Your task to perform on an android device: Open CNN.com Image 0: 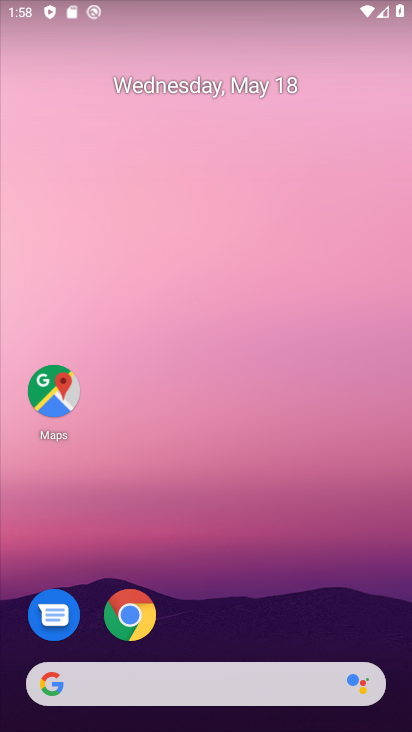
Step 0: click (145, 611)
Your task to perform on an android device: Open CNN.com Image 1: 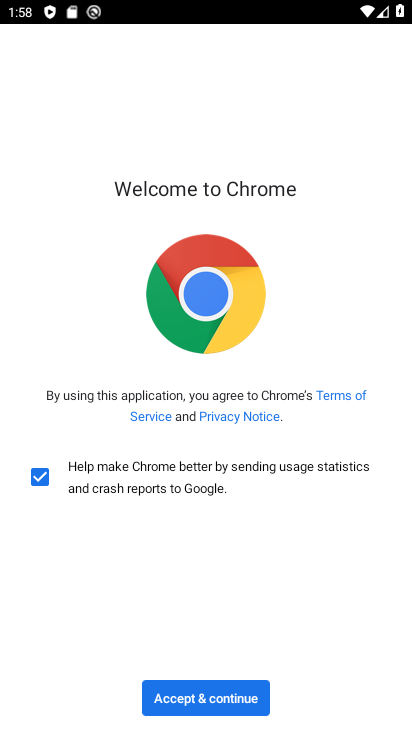
Step 1: click (202, 701)
Your task to perform on an android device: Open CNN.com Image 2: 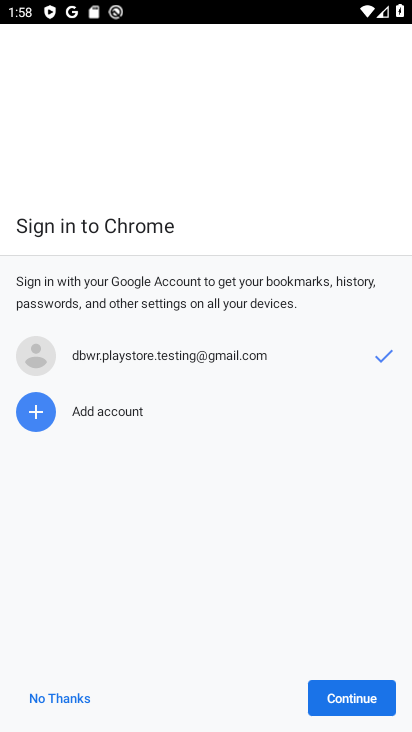
Step 2: click (379, 699)
Your task to perform on an android device: Open CNN.com Image 3: 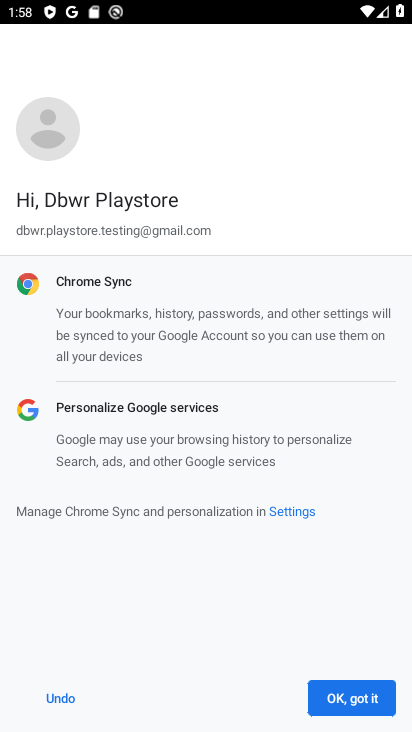
Step 3: click (379, 699)
Your task to perform on an android device: Open CNN.com Image 4: 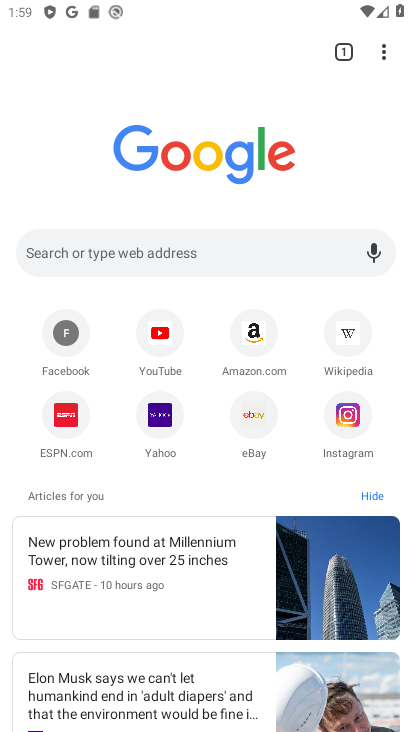
Step 4: click (212, 260)
Your task to perform on an android device: Open CNN.com Image 5: 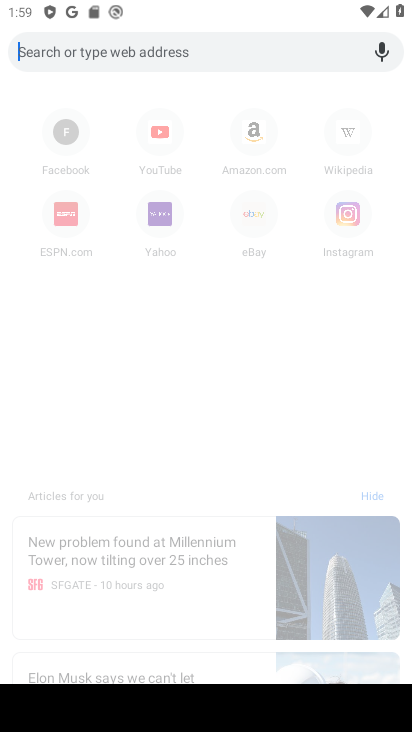
Step 5: type "cnn.com"
Your task to perform on an android device: Open CNN.com Image 6: 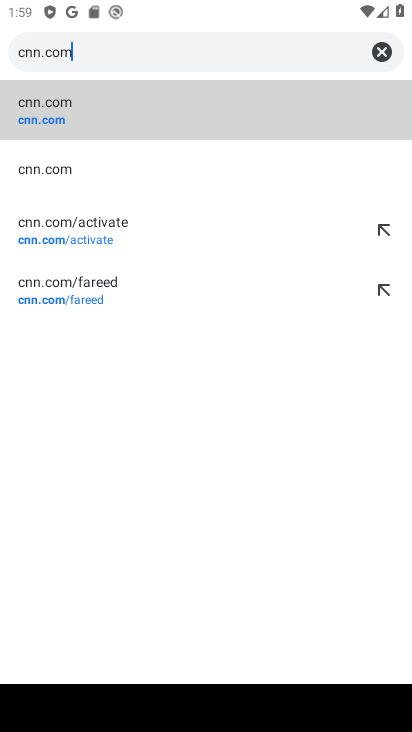
Step 6: click (56, 119)
Your task to perform on an android device: Open CNN.com Image 7: 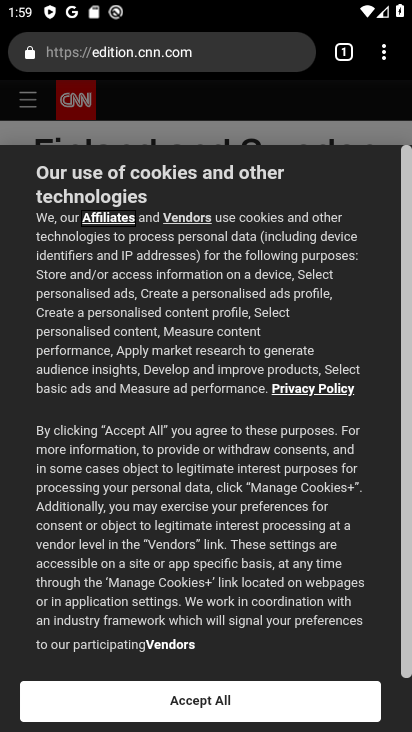
Step 7: task complete